Your task to perform on an android device: clear history in the chrome app Image 0: 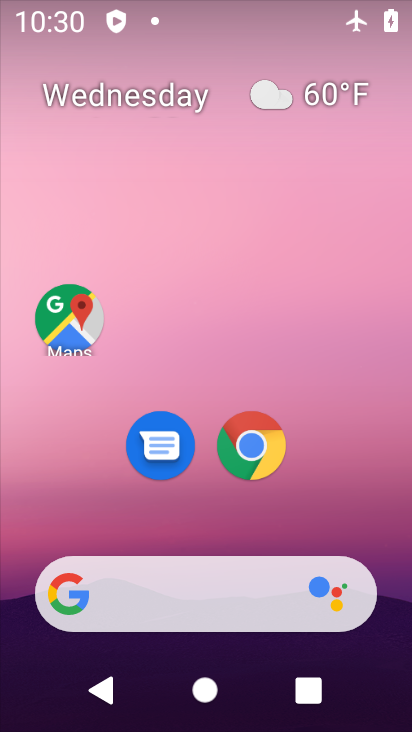
Step 0: click (257, 456)
Your task to perform on an android device: clear history in the chrome app Image 1: 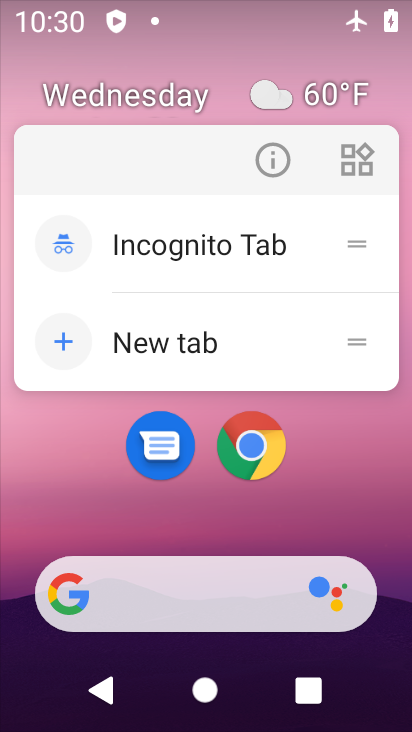
Step 1: click (236, 442)
Your task to perform on an android device: clear history in the chrome app Image 2: 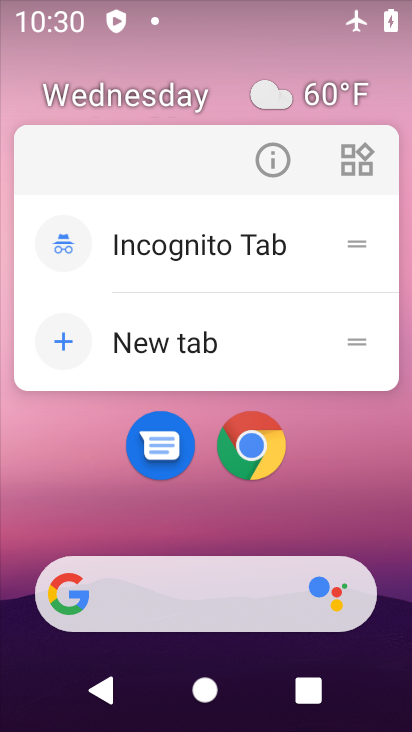
Step 2: click (236, 442)
Your task to perform on an android device: clear history in the chrome app Image 3: 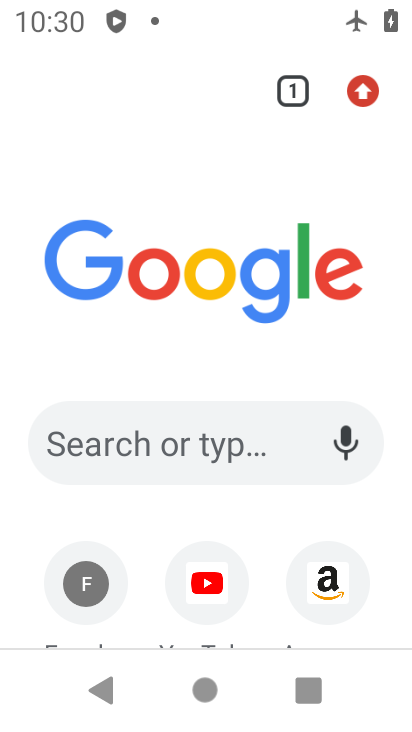
Step 3: click (361, 77)
Your task to perform on an android device: clear history in the chrome app Image 4: 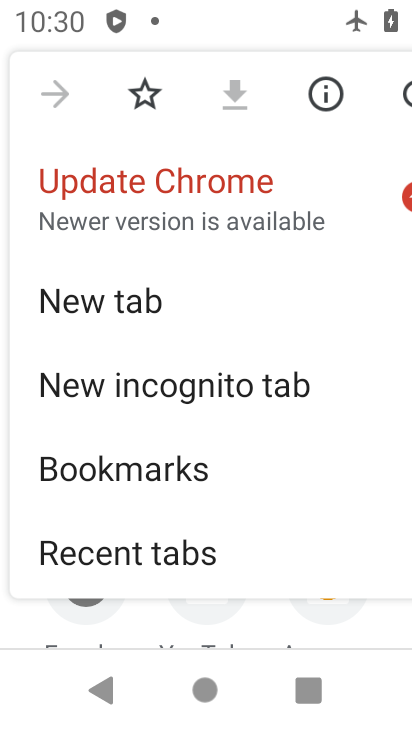
Step 4: drag from (202, 521) to (228, 287)
Your task to perform on an android device: clear history in the chrome app Image 5: 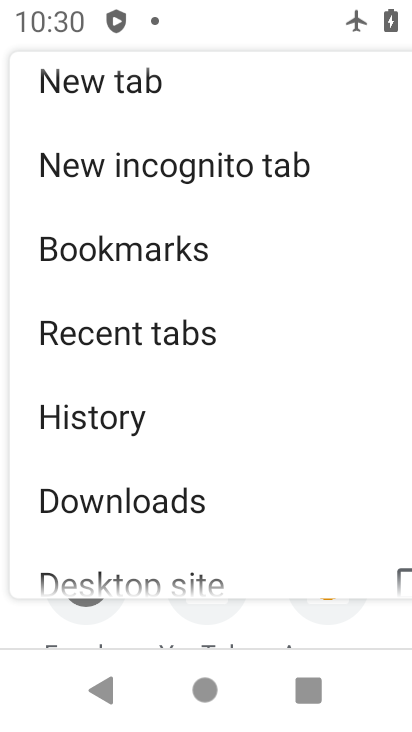
Step 5: drag from (249, 502) to (259, 345)
Your task to perform on an android device: clear history in the chrome app Image 6: 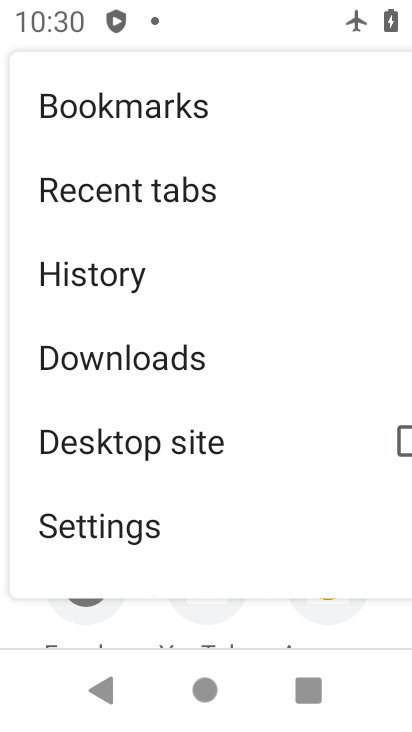
Step 6: click (134, 272)
Your task to perform on an android device: clear history in the chrome app Image 7: 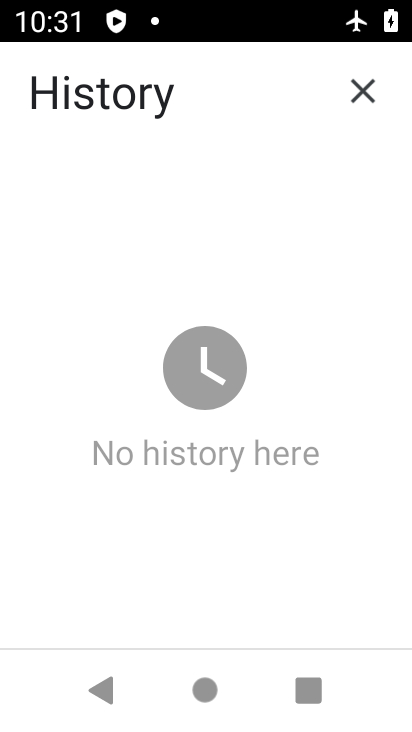
Step 7: task complete